Your task to perform on an android device: Check the news Image 0: 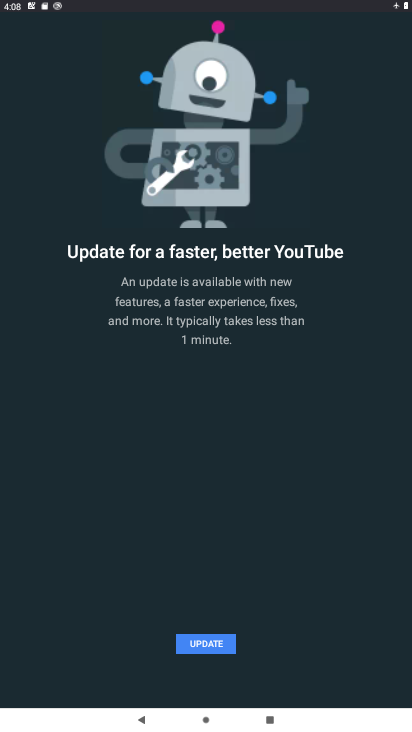
Step 0: press home button
Your task to perform on an android device: Check the news Image 1: 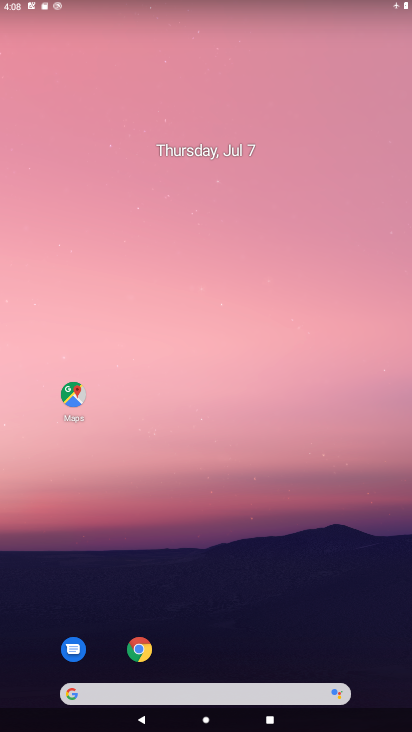
Step 1: task complete